Your task to perform on an android device: snooze an email in the gmail app Image 0: 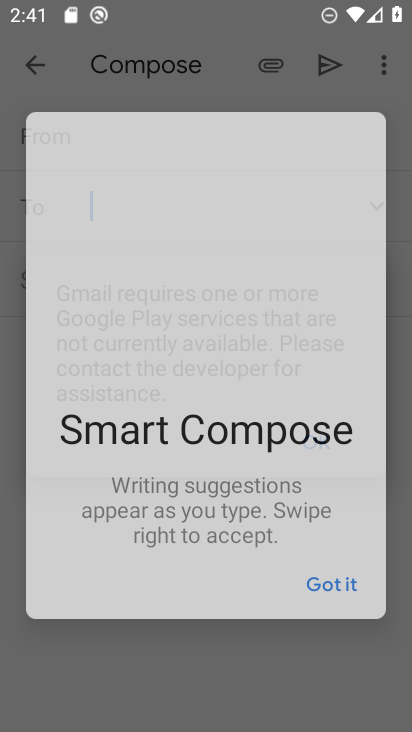
Step 0: press home button
Your task to perform on an android device: snooze an email in the gmail app Image 1: 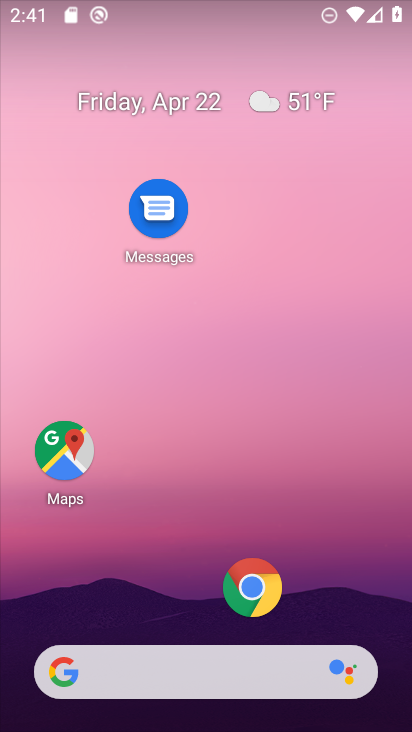
Step 1: drag from (198, 620) to (246, 198)
Your task to perform on an android device: snooze an email in the gmail app Image 2: 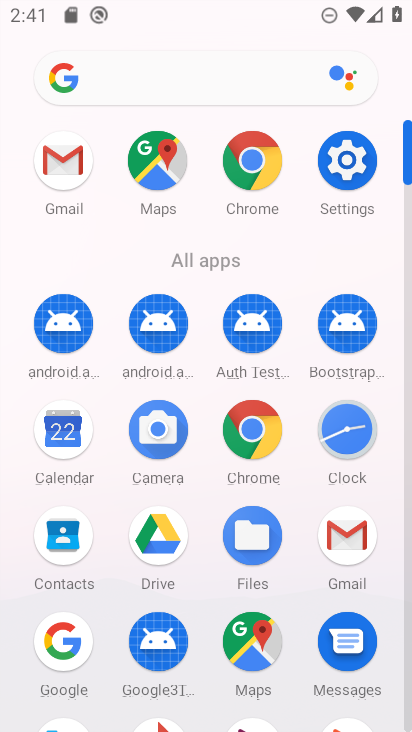
Step 2: click (345, 538)
Your task to perform on an android device: snooze an email in the gmail app Image 3: 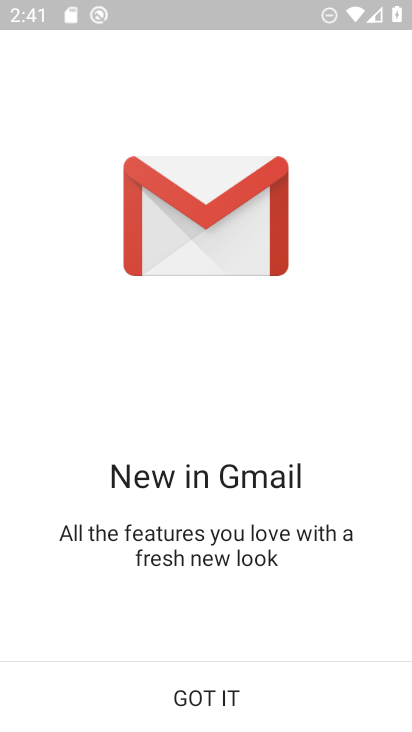
Step 3: click (249, 681)
Your task to perform on an android device: snooze an email in the gmail app Image 4: 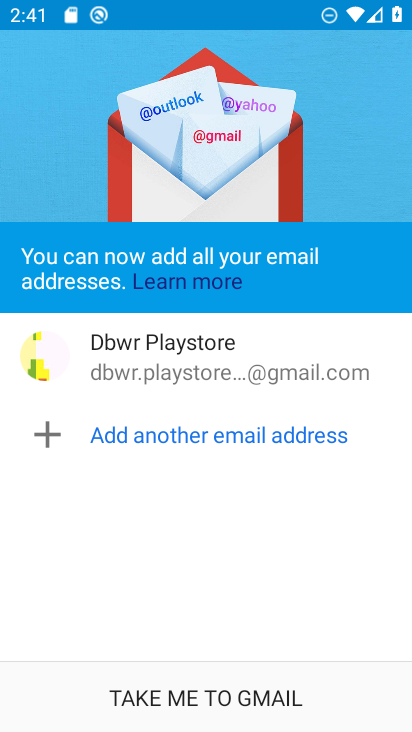
Step 4: click (250, 682)
Your task to perform on an android device: snooze an email in the gmail app Image 5: 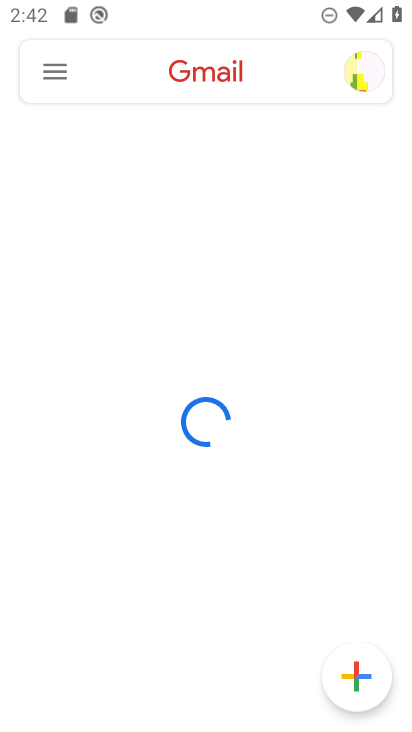
Step 5: click (48, 79)
Your task to perform on an android device: snooze an email in the gmail app Image 6: 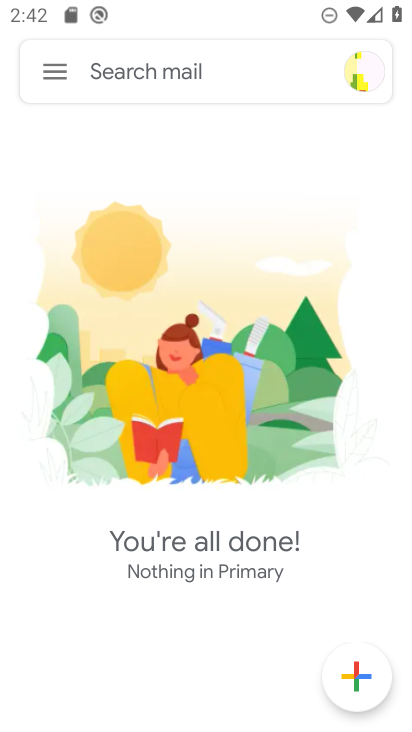
Step 6: click (58, 74)
Your task to perform on an android device: snooze an email in the gmail app Image 7: 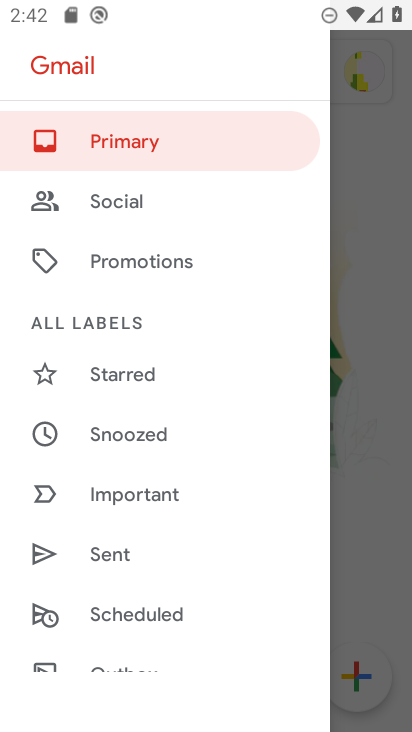
Step 7: drag from (171, 582) to (199, 296)
Your task to perform on an android device: snooze an email in the gmail app Image 8: 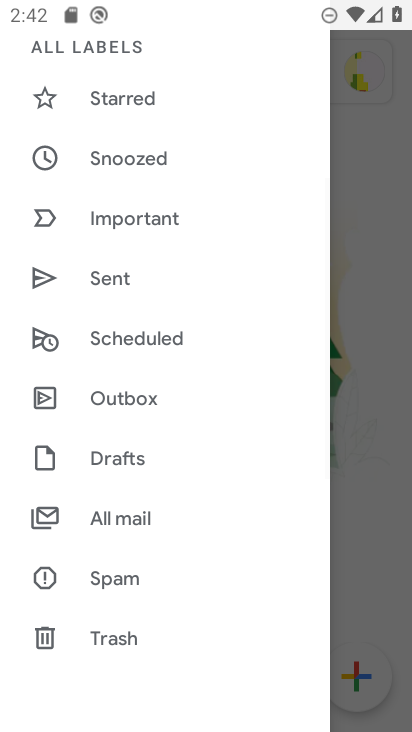
Step 8: click (139, 520)
Your task to perform on an android device: snooze an email in the gmail app Image 9: 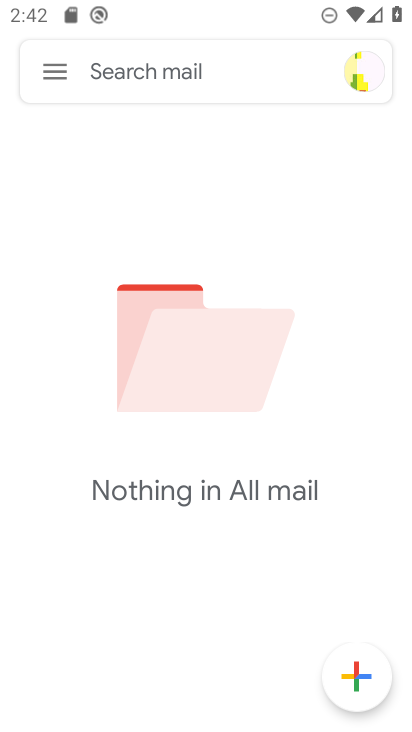
Step 9: task complete